Your task to perform on an android device: What is the recent news? Image 0: 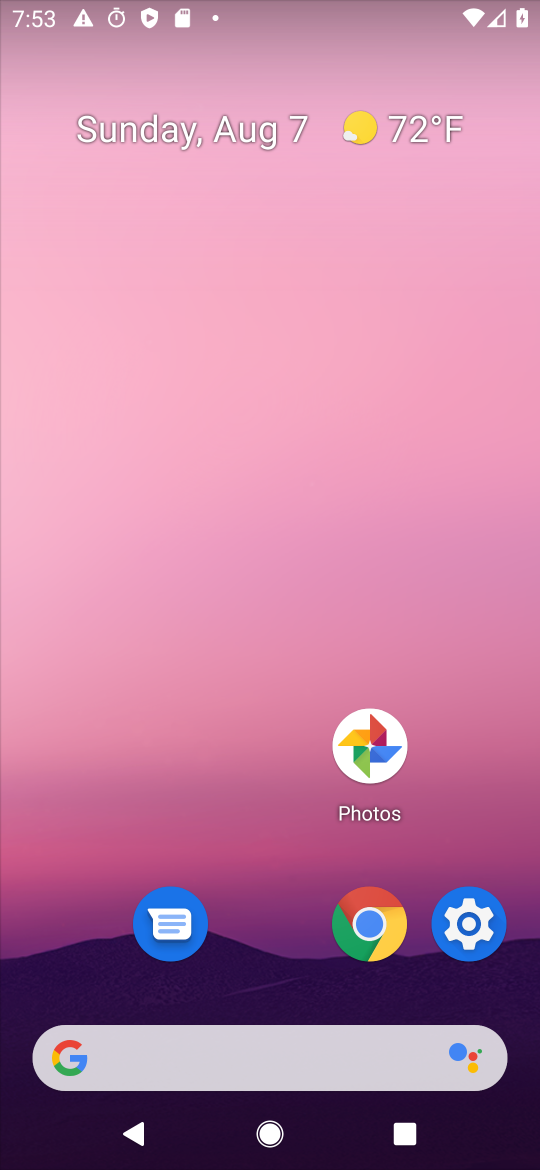
Step 0: drag from (371, 1010) to (229, 60)
Your task to perform on an android device: What is the recent news? Image 1: 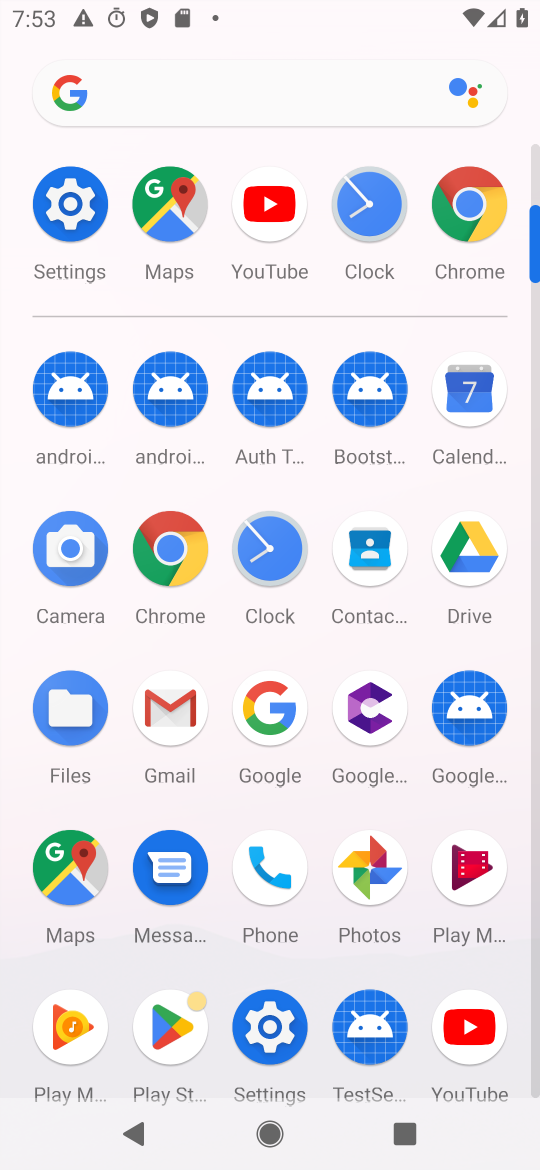
Step 1: click (199, 92)
Your task to perform on an android device: What is the recent news? Image 2: 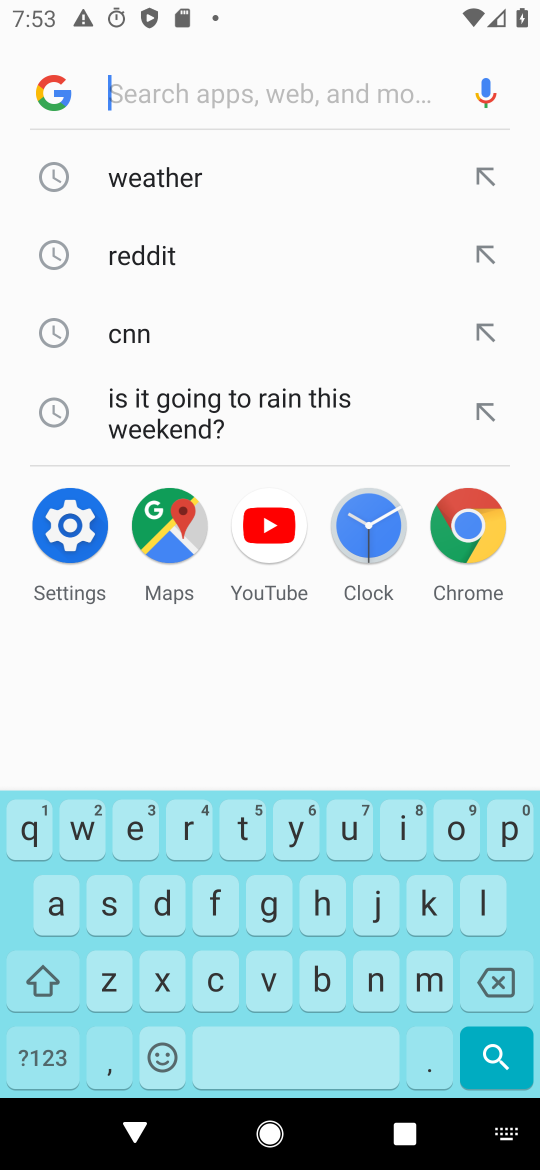
Step 2: click (178, 835)
Your task to perform on an android device: What is the recent news? Image 3: 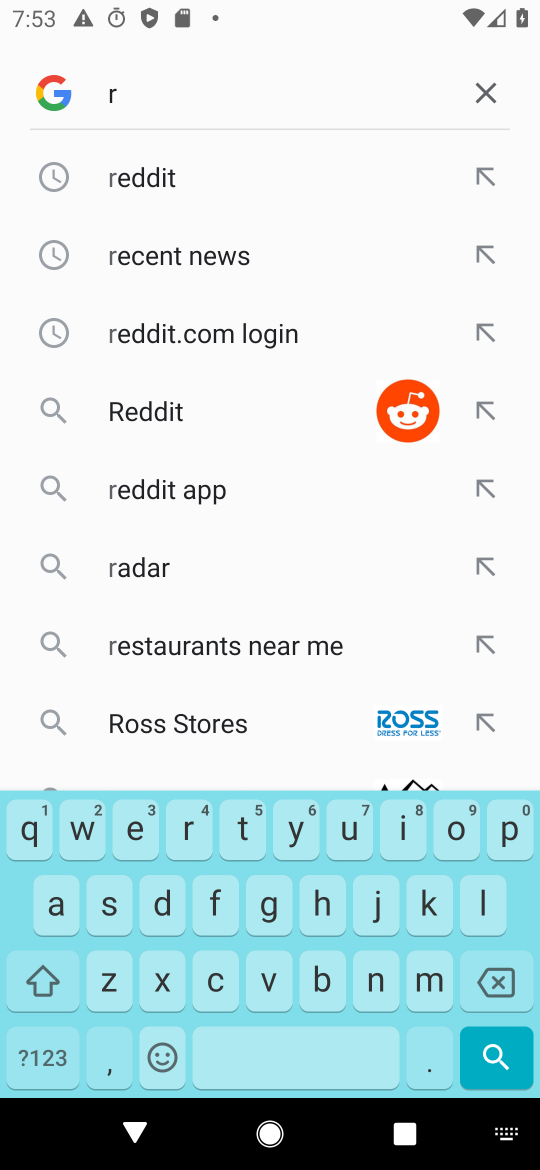
Step 3: click (180, 267)
Your task to perform on an android device: What is the recent news? Image 4: 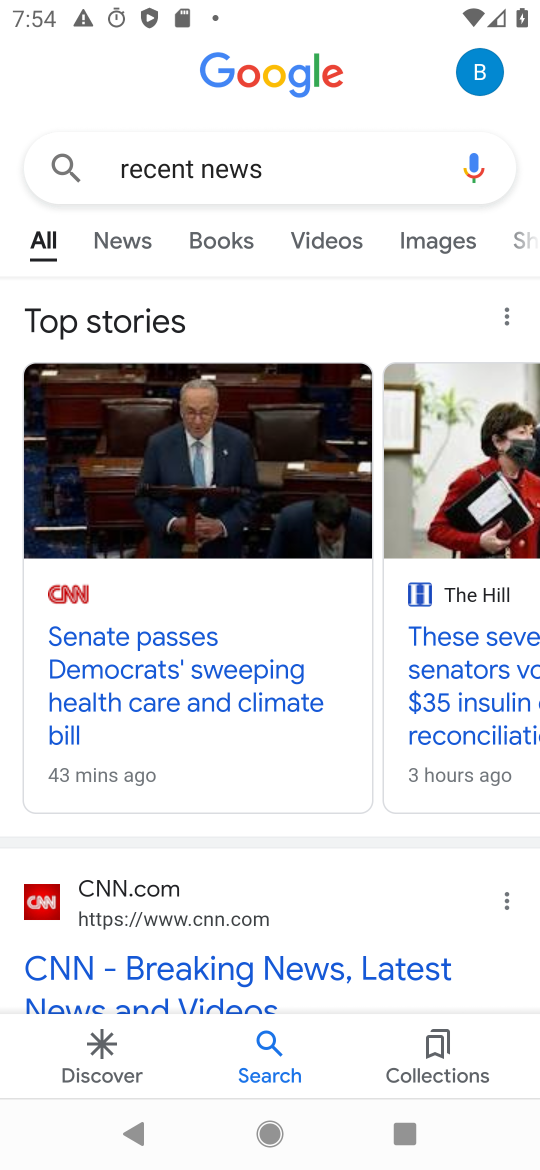
Step 4: task complete